Your task to perform on an android device: refresh tabs in the chrome app Image 0: 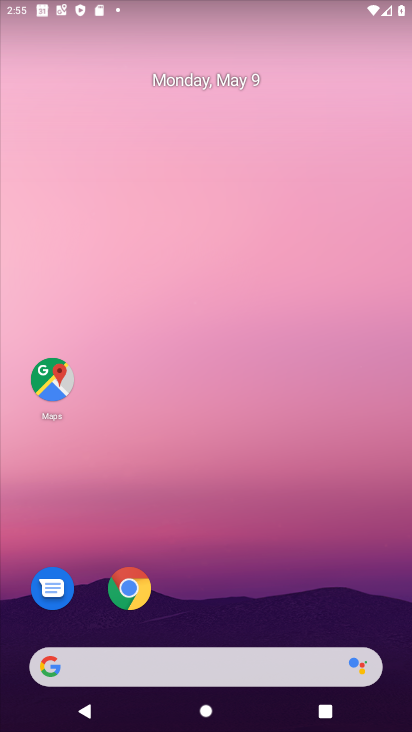
Step 0: click (134, 608)
Your task to perform on an android device: refresh tabs in the chrome app Image 1: 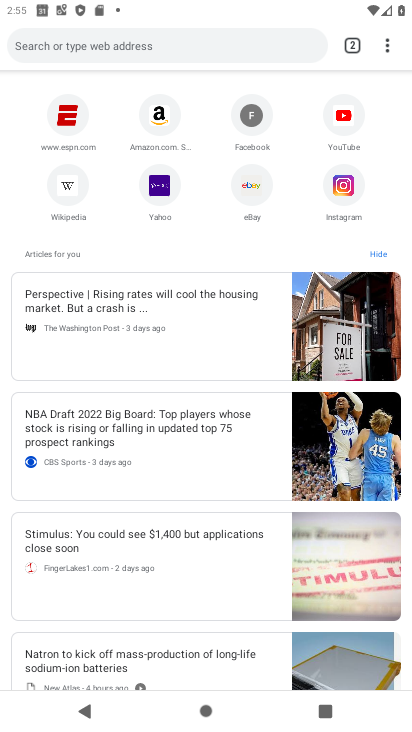
Step 1: click (385, 49)
Your task to perform on an android device: refresh tabs in the chrome app Image 2: 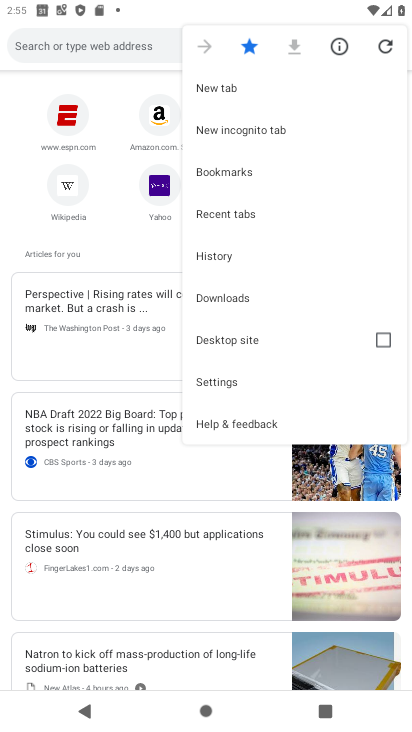
Step 2: click (385, 44)
Your task to perform on an android device: refresh tabs in the chrome app Image 3: 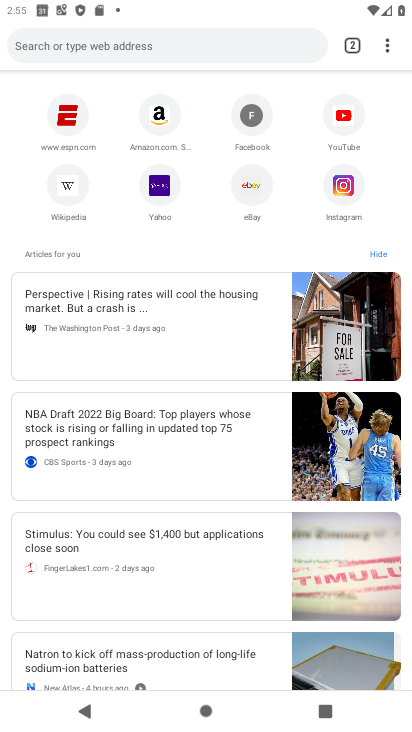
Step 3: task complete